Your task to perform on an android device: check storage Image 0: 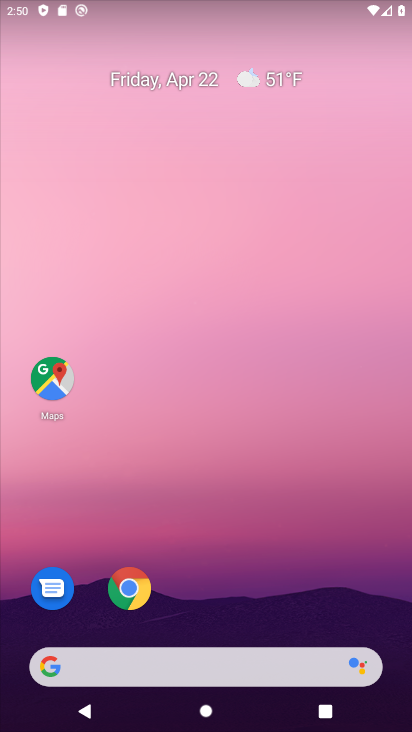
Step 0: drag from (357, 585) to (378, 106)
Your task to perform on an android device: check storage Image 1: 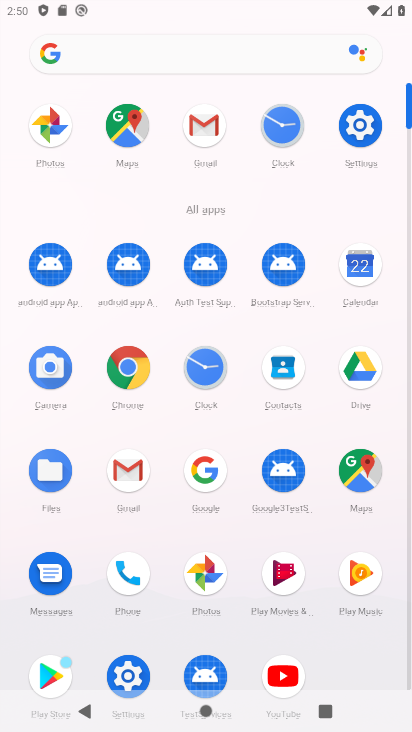
Step 1: click (372, 133)
Your task to perform on an android device: check storage Image 2: 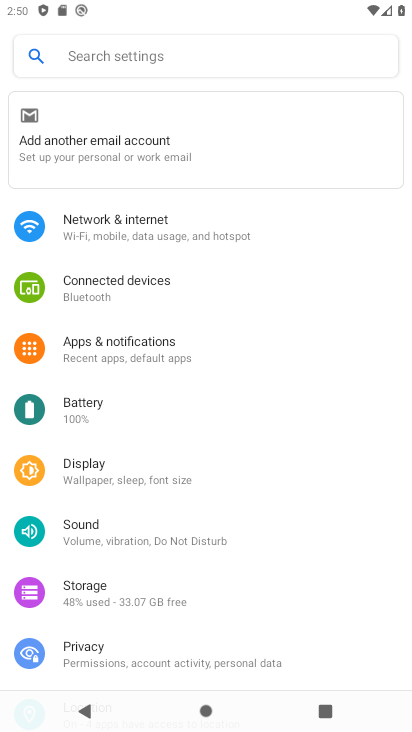
Step 2: drag from (336, 540) to (347, 390)
Your task to perform on an android device: check storage Image 3: 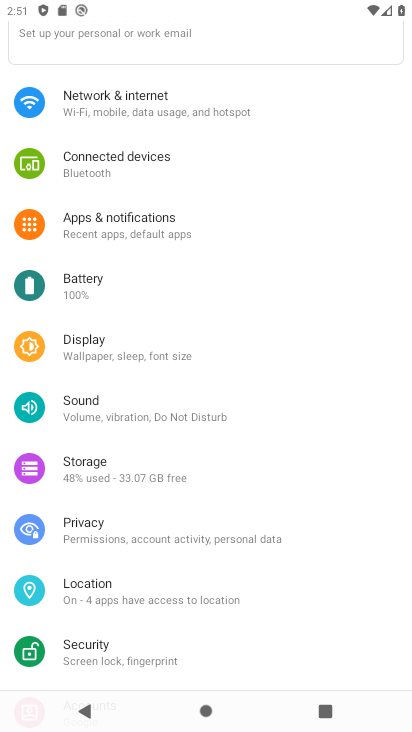
Step 3: drag from (346, 529) to (344, 429)
Your task to perform on an android device: check storage Image 4: 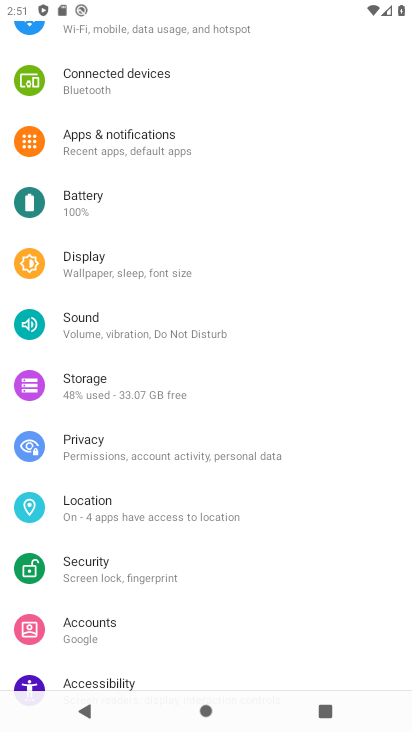
Step 4: drag from (347, 565) to (365, 429)
Your task to perform on an android device: check storage Image 5: 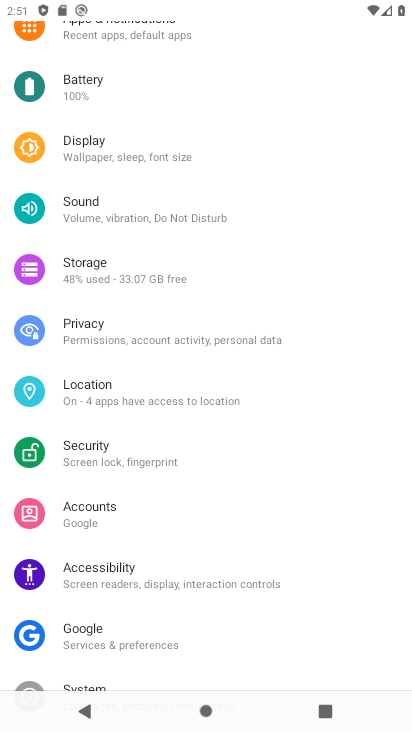
Step 5: drag from (346, 599) to (365, 458)
Your task to perform on an android device: check storage Image 6: 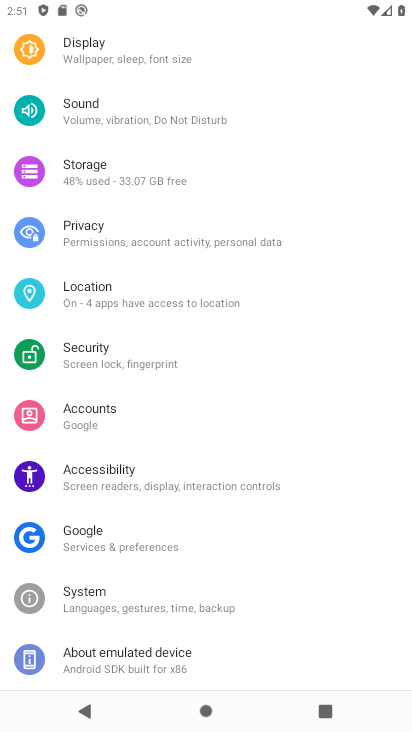
Step 6: drag from (352, 618) to (364, 431)
Your task to perform on an android device: check storage Image 7: 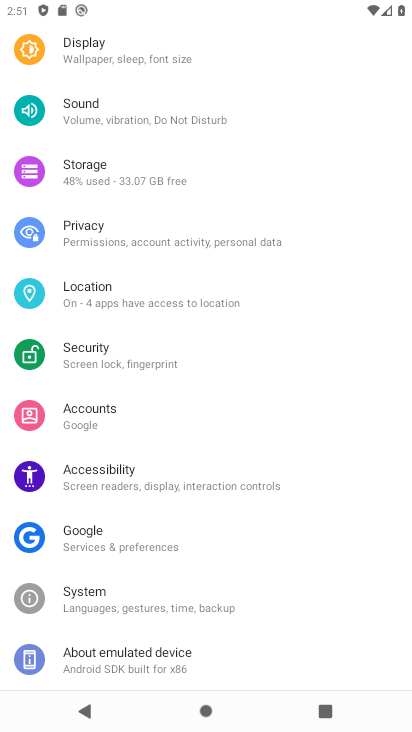
Step 7: drag from (368, 375) to (357, 496)
Your task to perform on an android device: check storage Image 8: 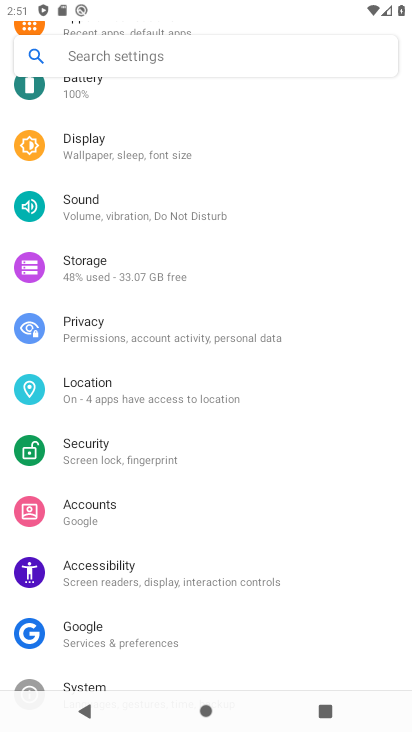
Step 8: drag from (350, 359) to (326, 462)
Your task to perform on an android device: check storage Image 9: 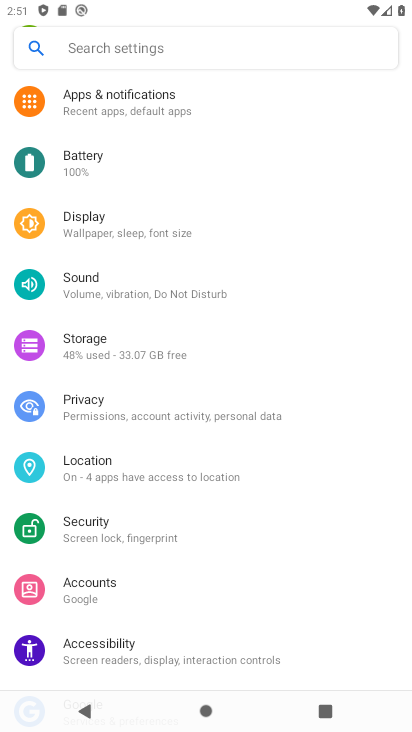
Step 9: drag from (332, 330) to (333, 467)
Your task to perform on an android device: check storage Image 10: 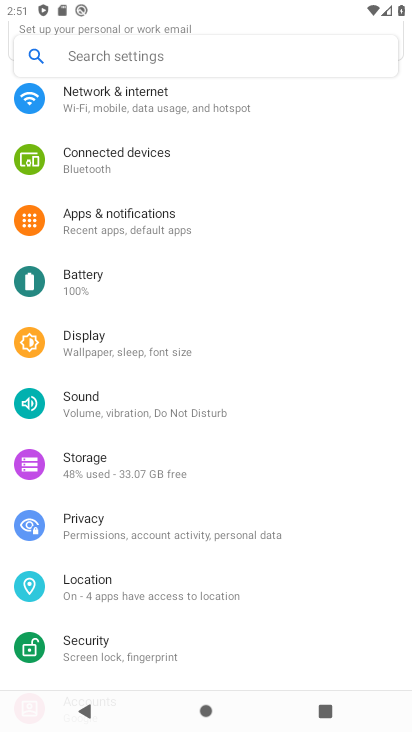
Step 10: click (241, 469)
Your task to perform on an android device: check storage Image 11: 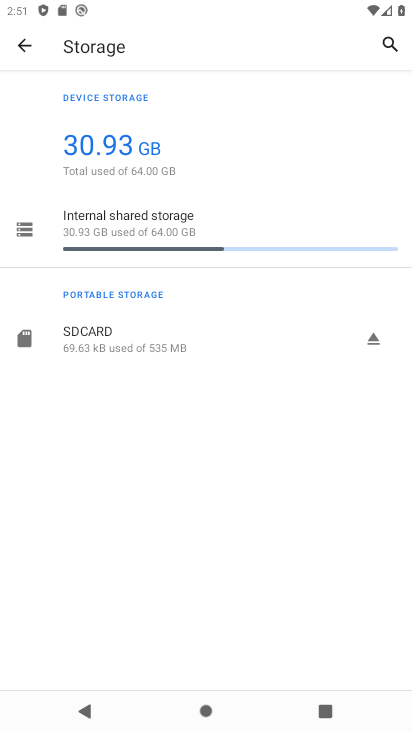
Step 11: task complete